Your task to perform on an android device: check data usage Image 0: 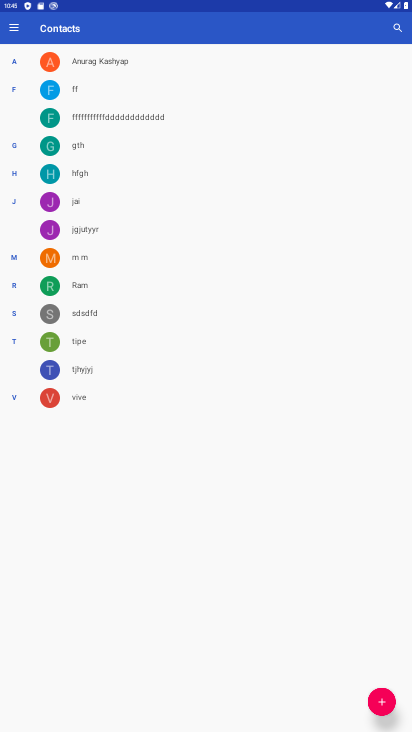
Step 0: press home button
Your task to perform on an android device: check data usage Image 1: 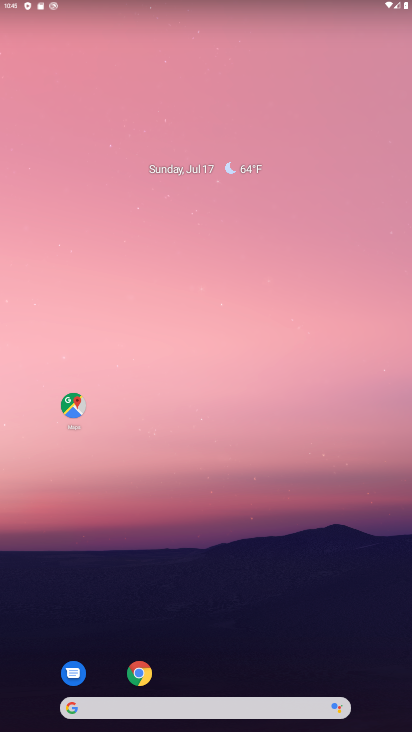
Step 1: drag from (251, 651) to (188, 209)
Your task to perform on an android device: check data usage Image 2: 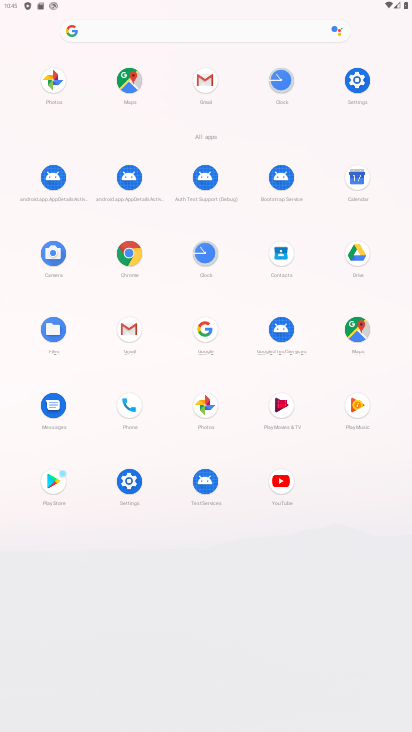
Step 2: click (353, 95)
Your task to perform on an android device: check data usage Image 3: 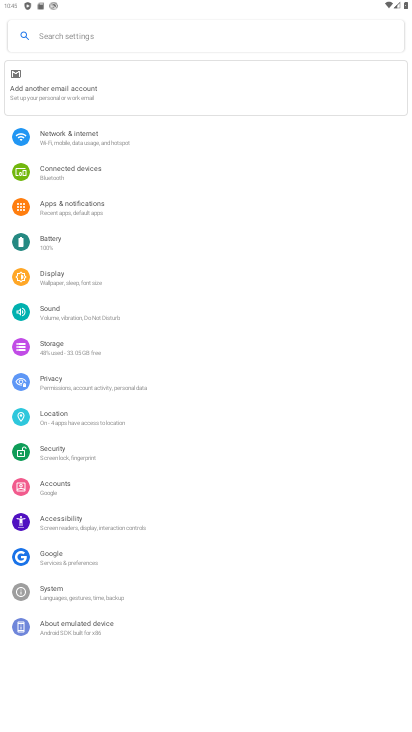
Step 3: click (106, 138)
Your task to perform on an android device: check data usage Image 4: 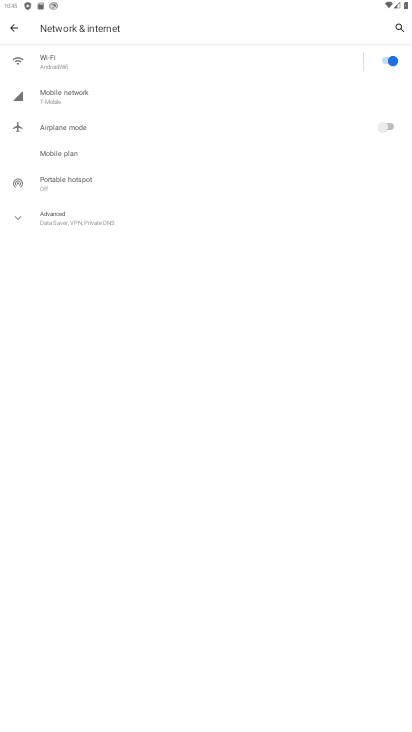
Step 4: click (110, 51)
Your task to perform on an android device: check data usage Image 5: 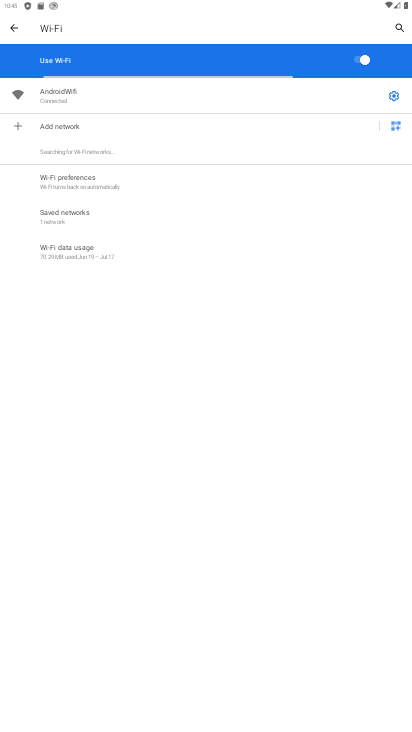
Step 5: click (154, 252)
Your task to perform on an android device: check data usage Image 6: 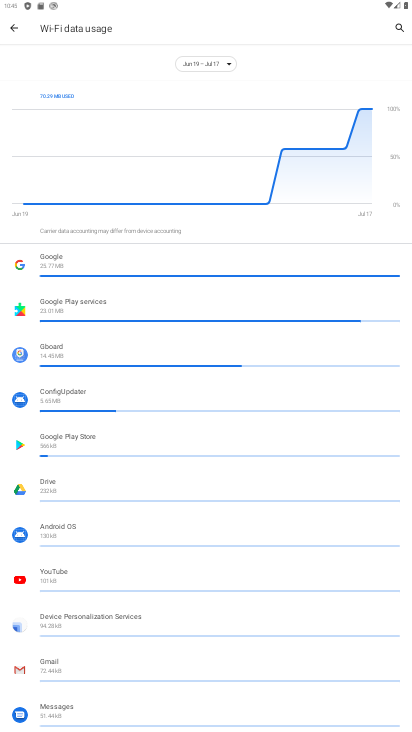
Step 6: task complete